Your task to perform on an android device: uninstall "Indeed Job Search" Image 0: 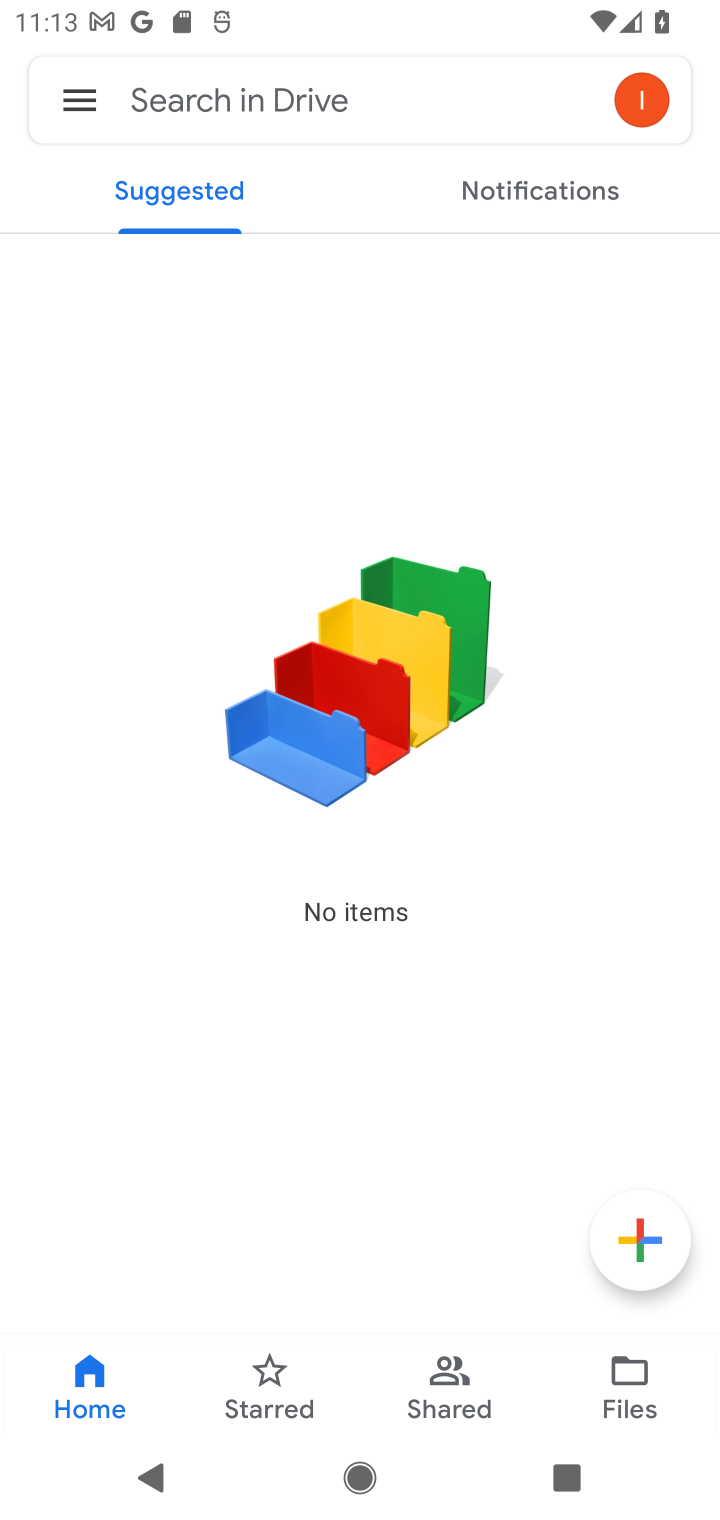
Step 0: press home button
Your task to perform on an android device: uninstall "Indeed Job Search" Image 1: 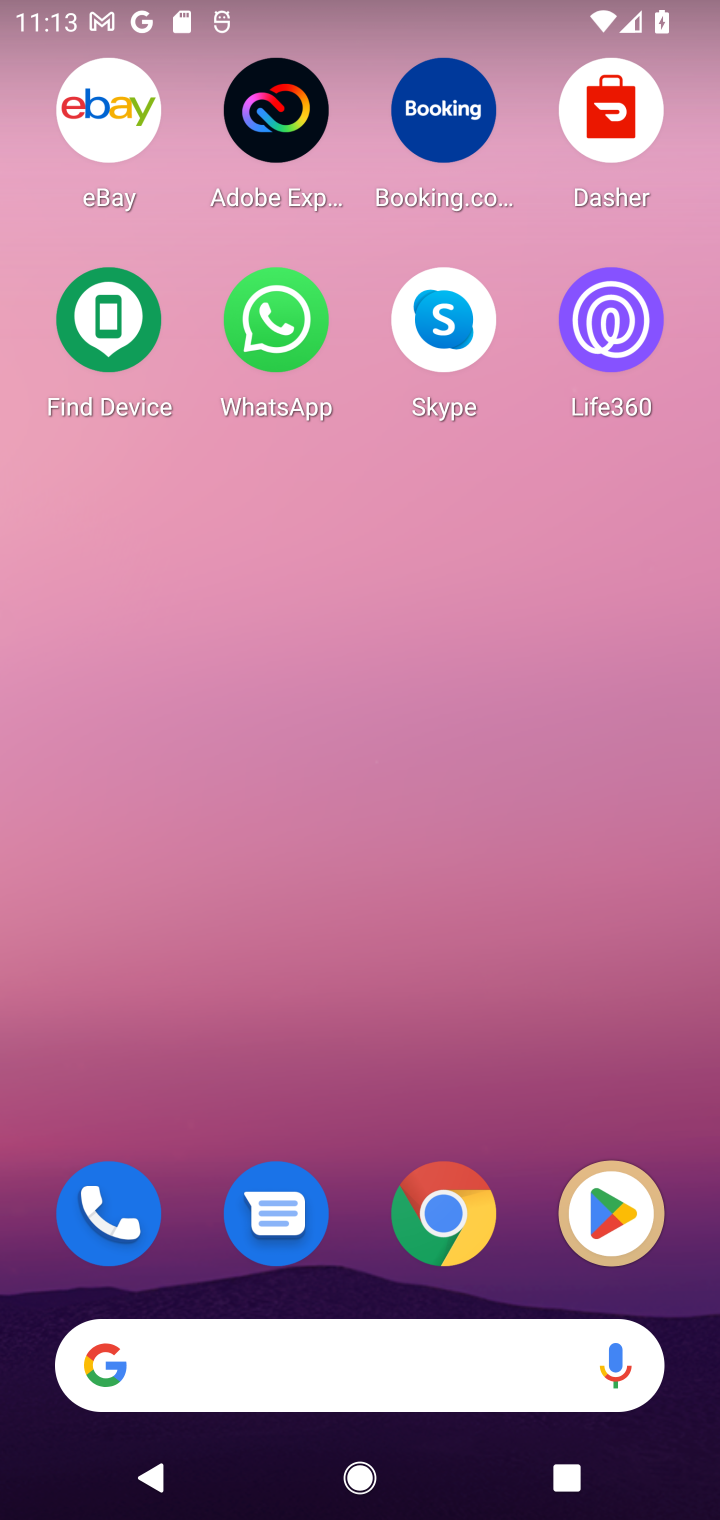
Step 1: drag from (290, 1382) to (345, 390)
Your task to perform on an android device: uninstall "Indeed Job Search" Image 2: 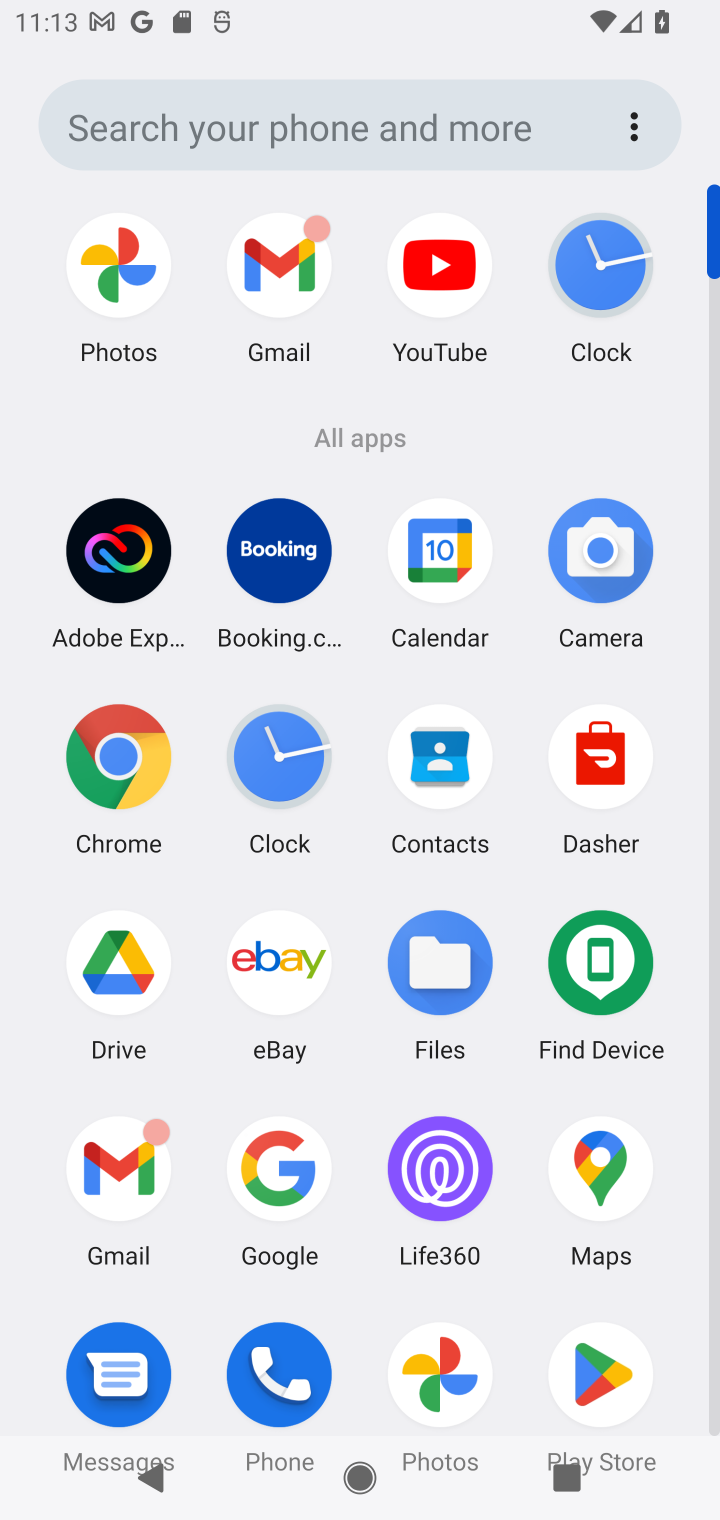
Step 2: click (605, 1380)
Your task to perform on an android device: uninstall "Indeed Job Search" Image 3: 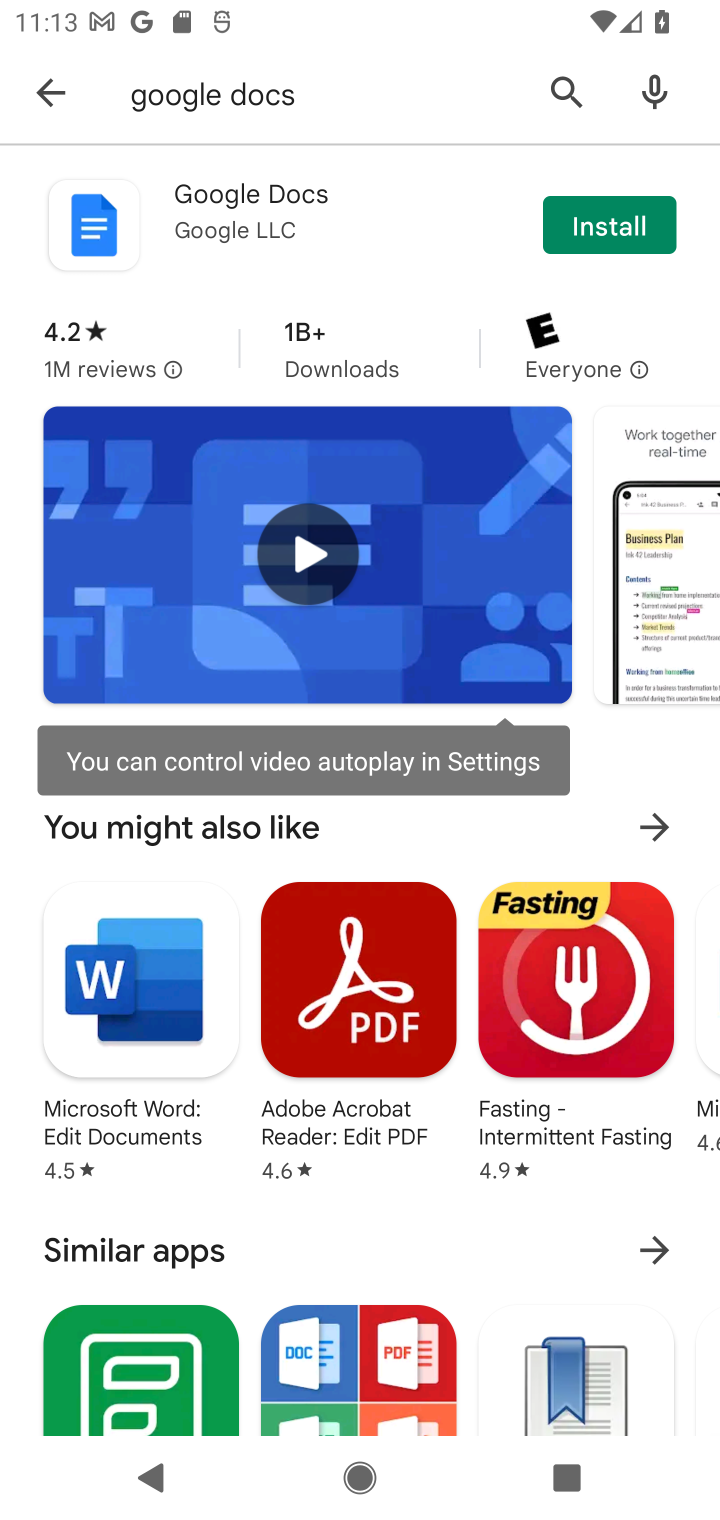
Step 3: press back button
Your task to perform on an android device: uninstall "Indeed Job Search" Image 4: 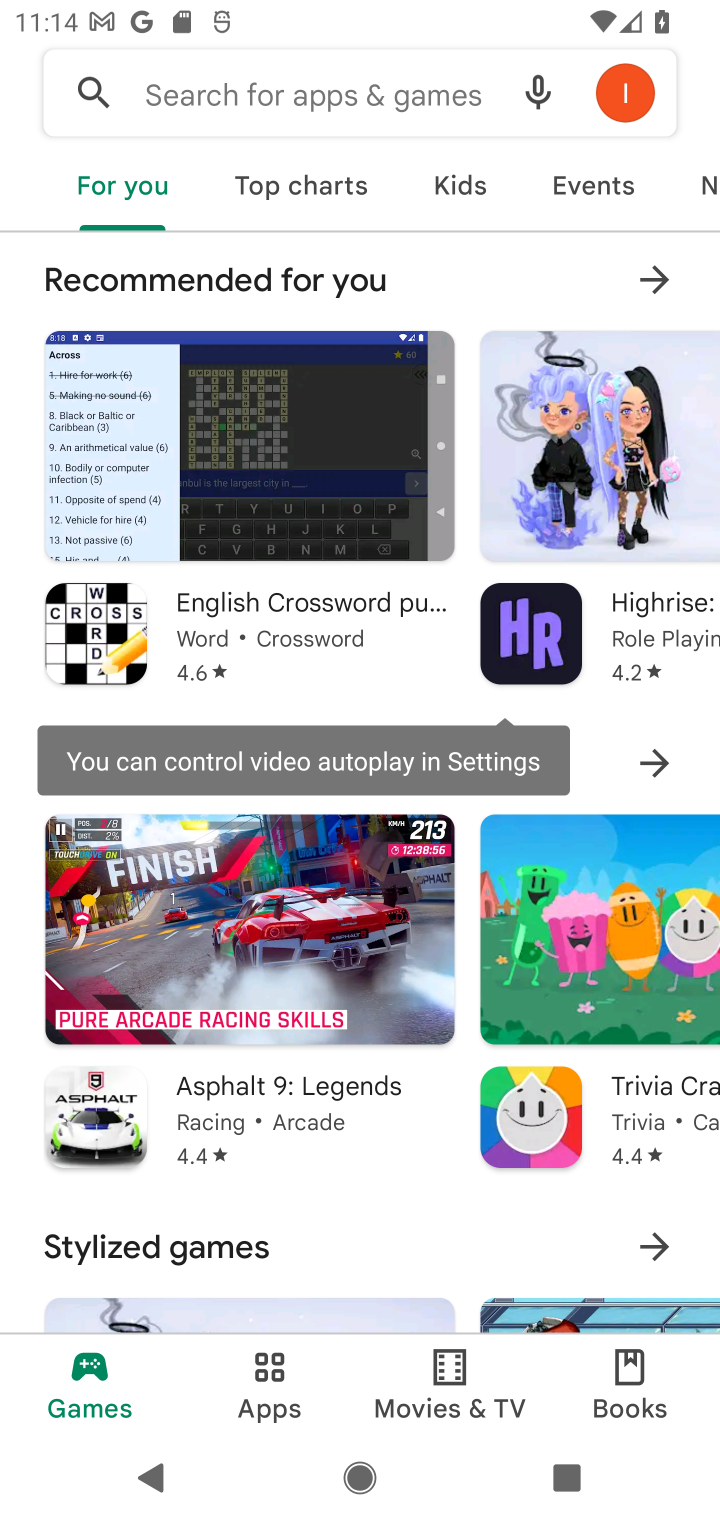
Step 4: click (399, 79)
Your task to perform on an android device: uninstall "Indeed Job Search" Image 5: 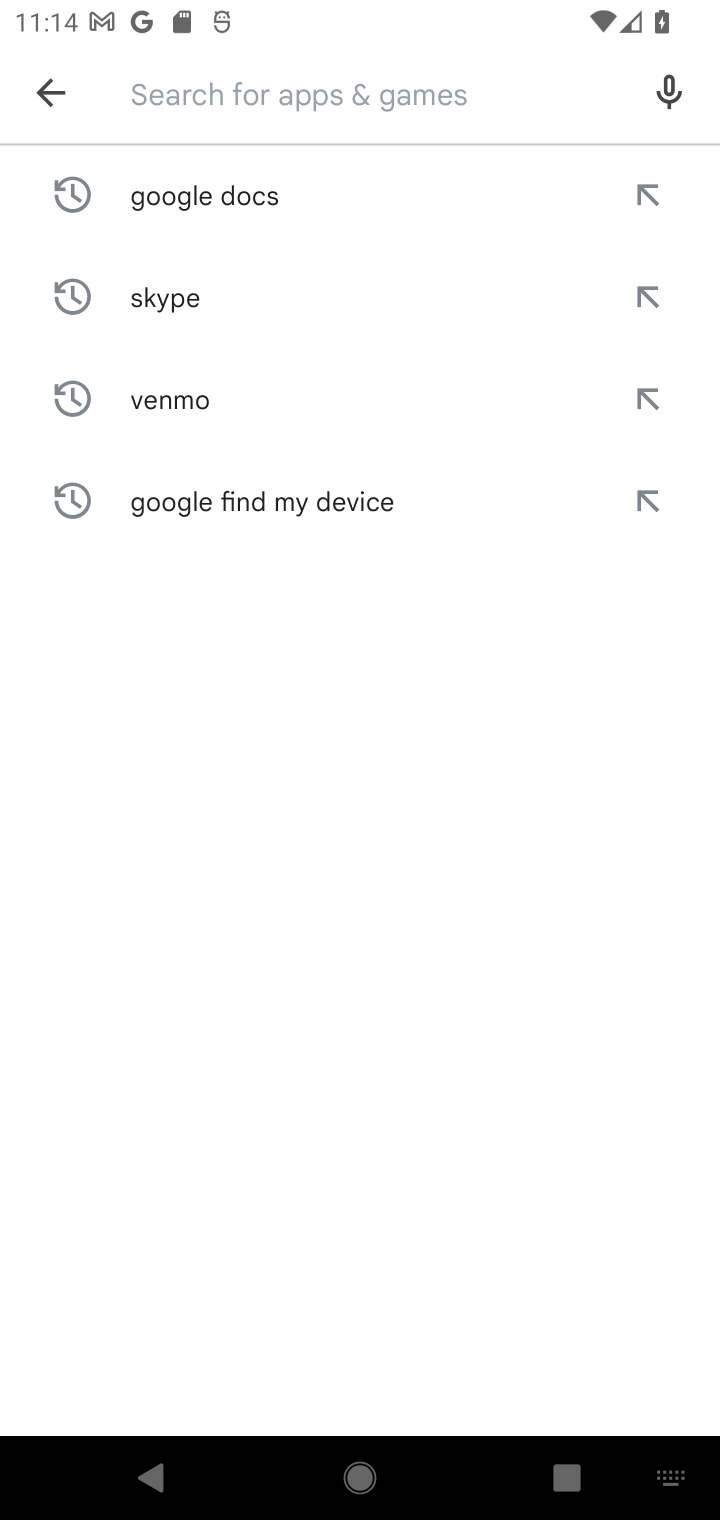
Step 5: click (240, 105)
Your task to perform on an android device: uninstall "Indeed Job Search" Image 6: 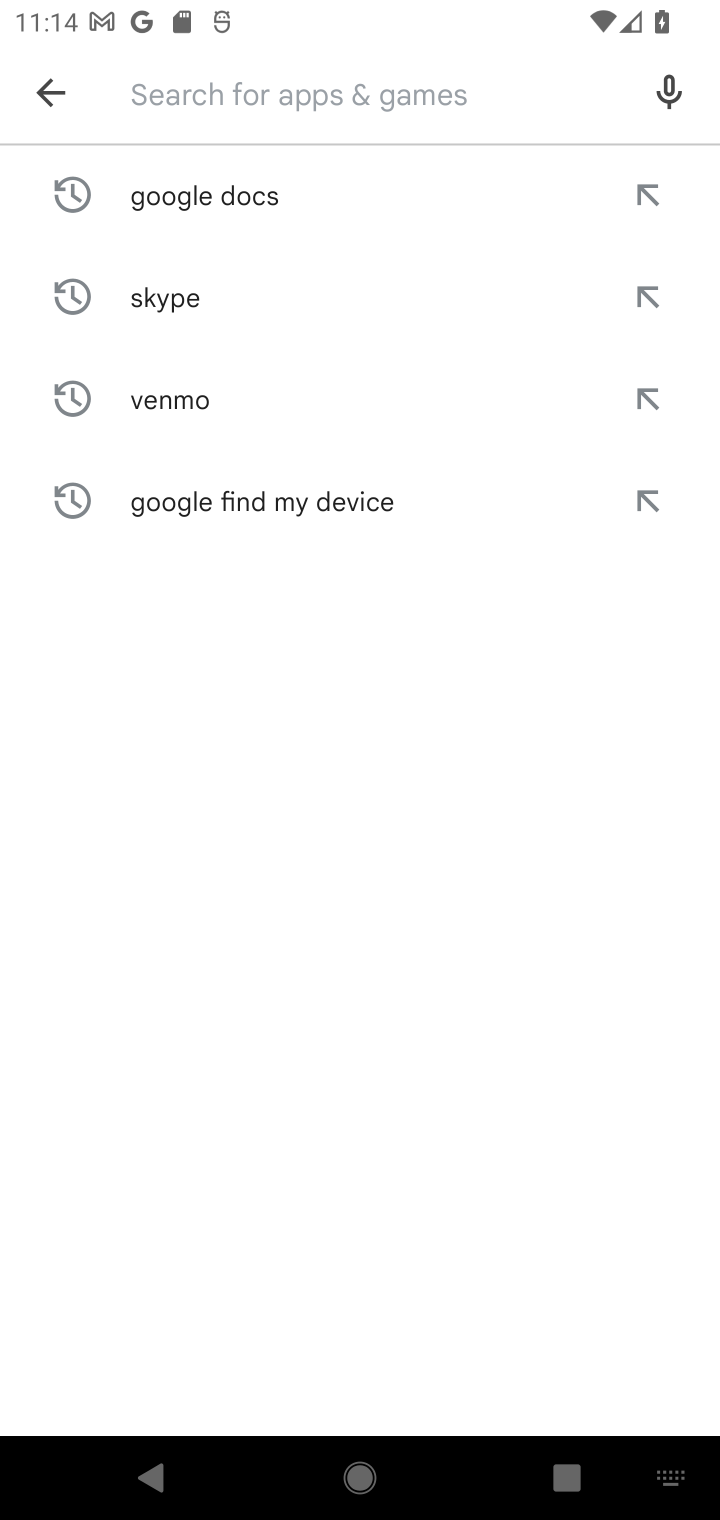
Step 6: type "Indeed Job Search"
Your task to perform on an android device: uninstall "Indeed Job Search" Image 7: 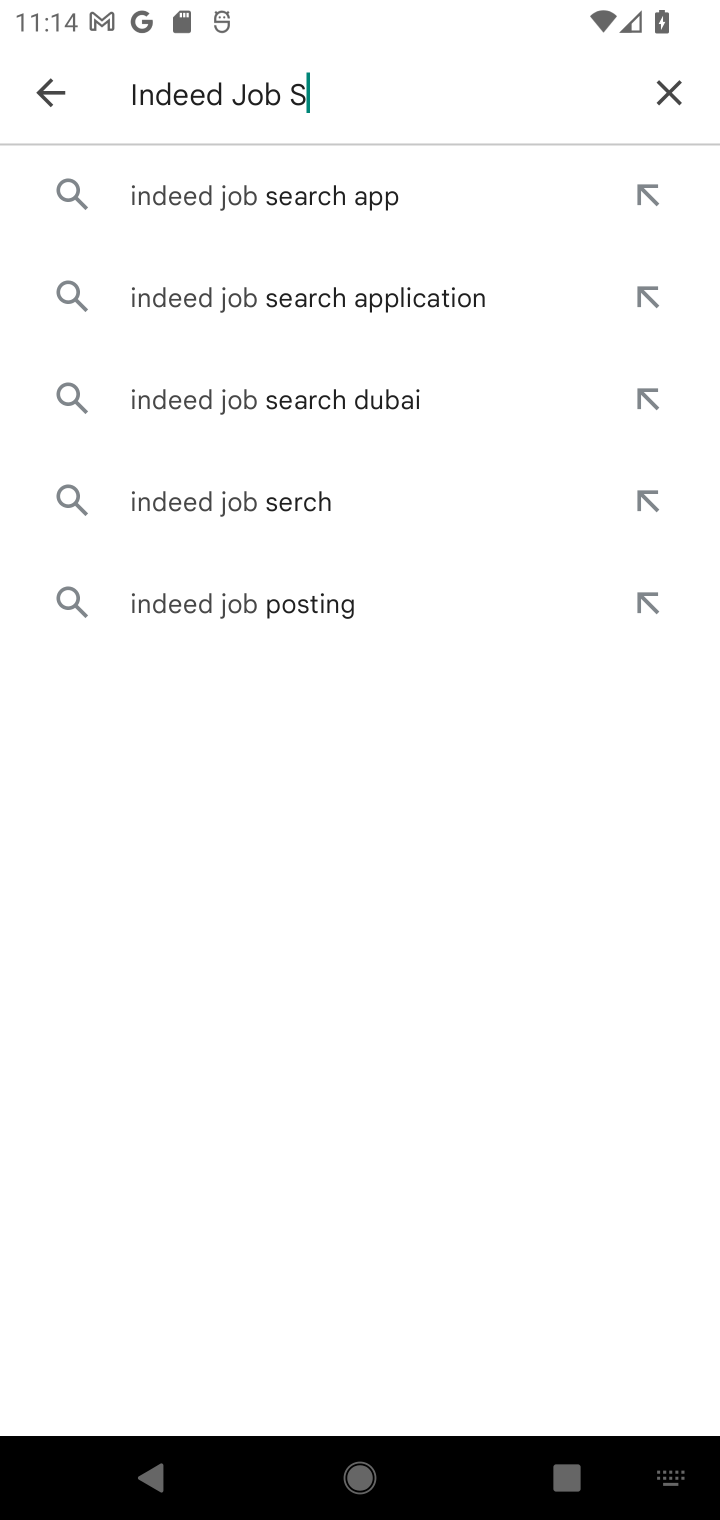
Step 7: type ""
Your task to perform on an android device: uninstall "Indeed Job Search" Image 8: 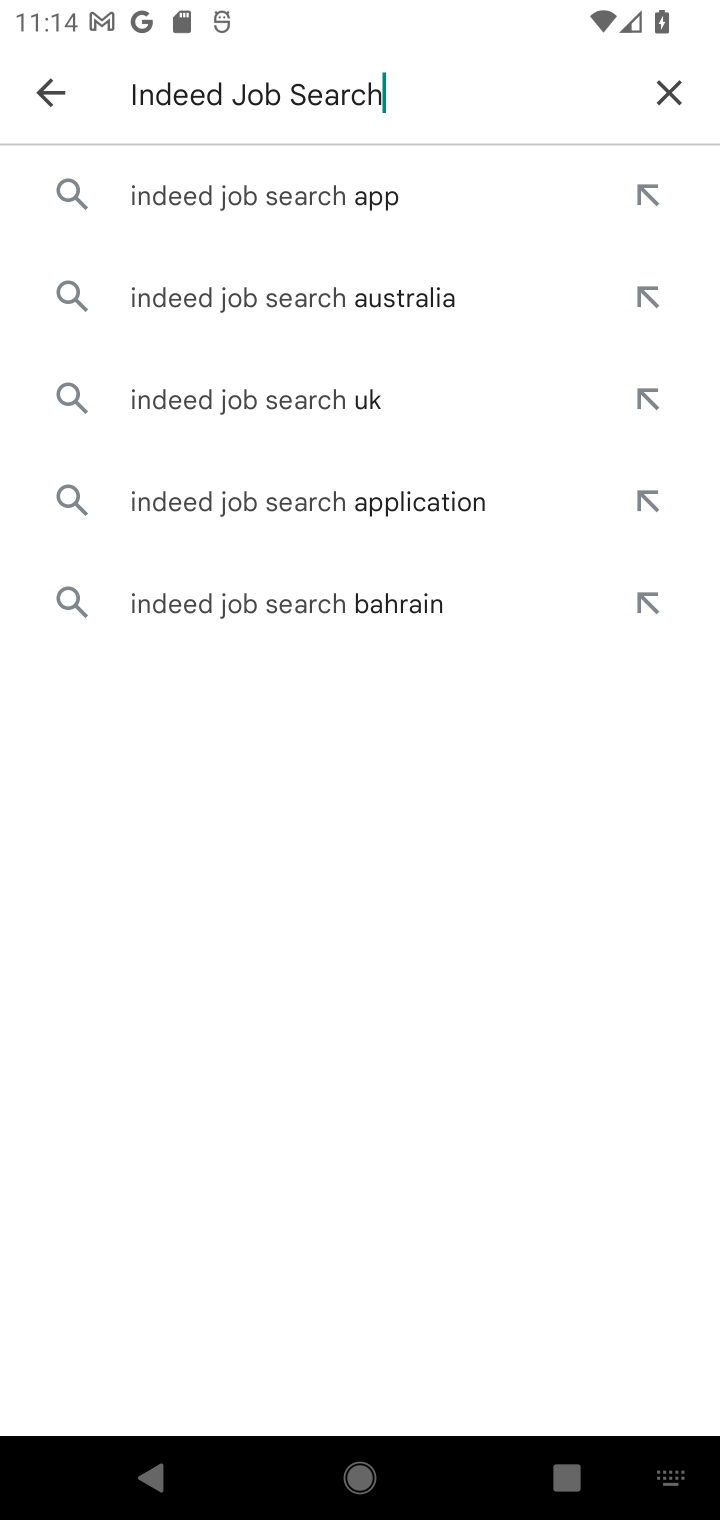
Step 8: click (253, 205)
Your task to perform on an android device: uninstall "Indeed Job Search" Image 9: 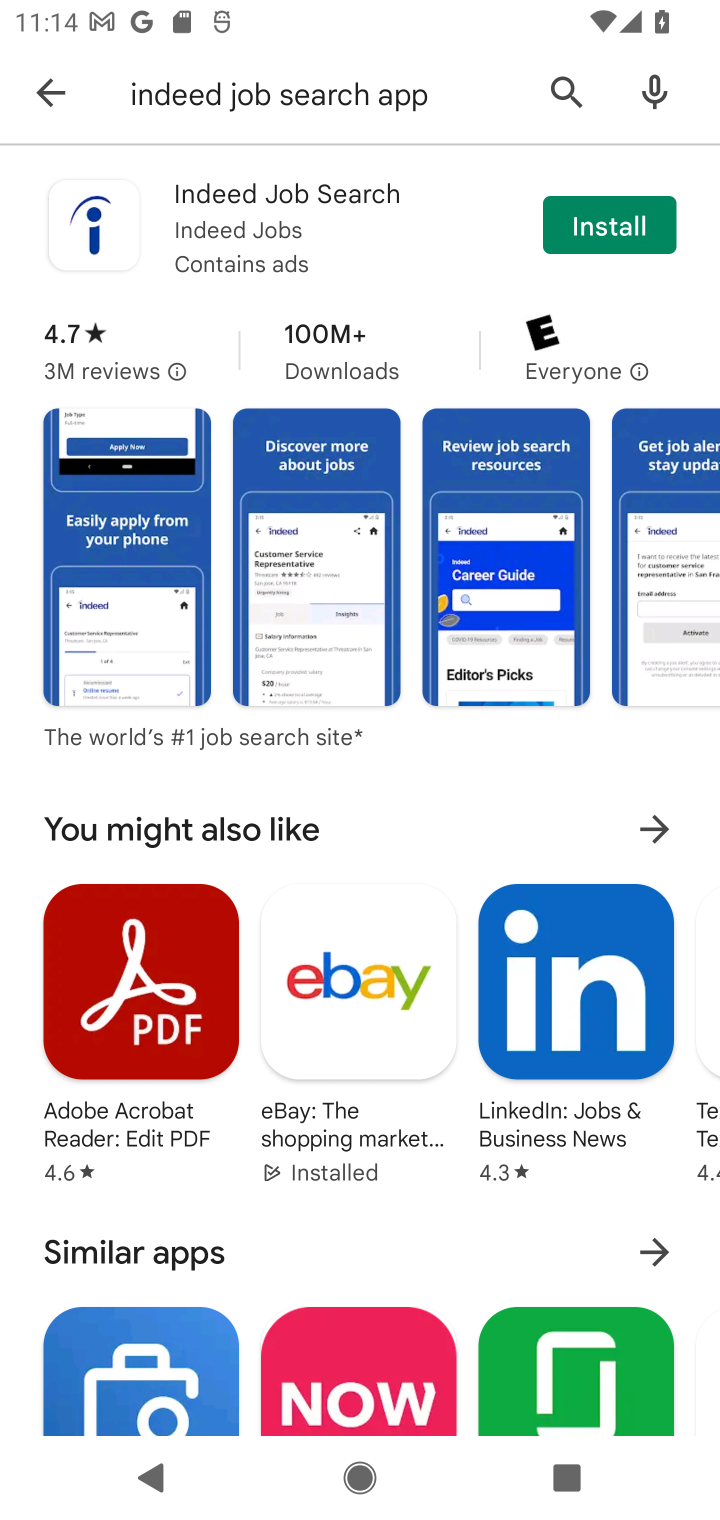
Step 9: task complete